Your task to perform on an android device: Go to Maps Image 0: 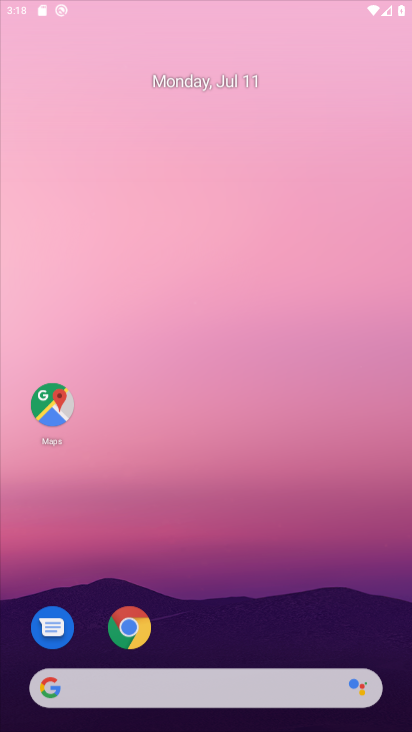
Step 0: click (253, 168)
Your task to perform on an android device: Go to Maps Image 1: 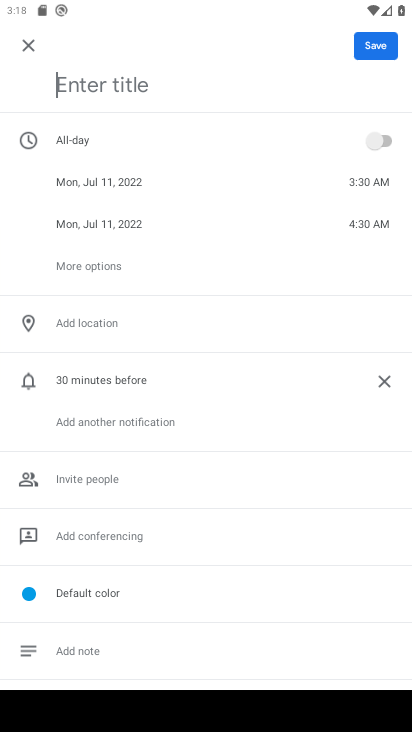
Step 1: press home button
Your task to perform on an android device: Go to Maps Image 2: 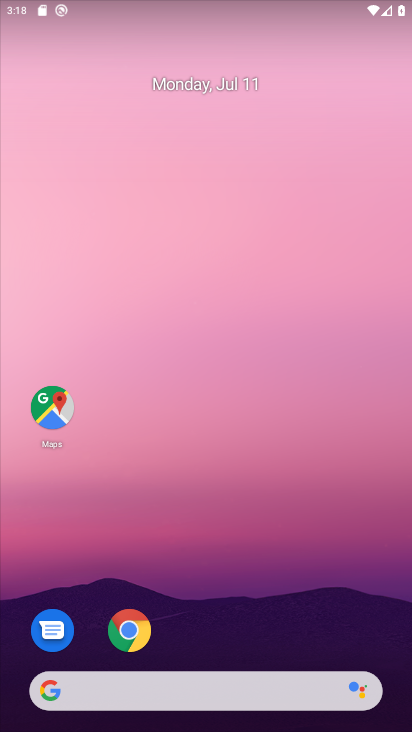
Step 2: click (33, 417)
Your task to perform on an android device: Go to Maps Image 3: 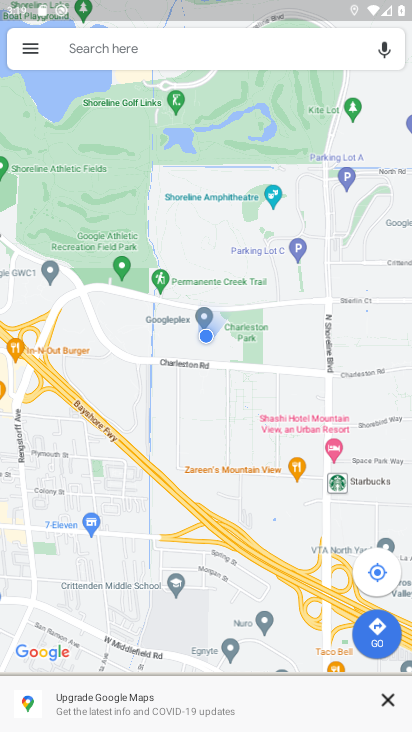
Step 3: task complete